Your task to perform on an android device: turn off location Image 0: 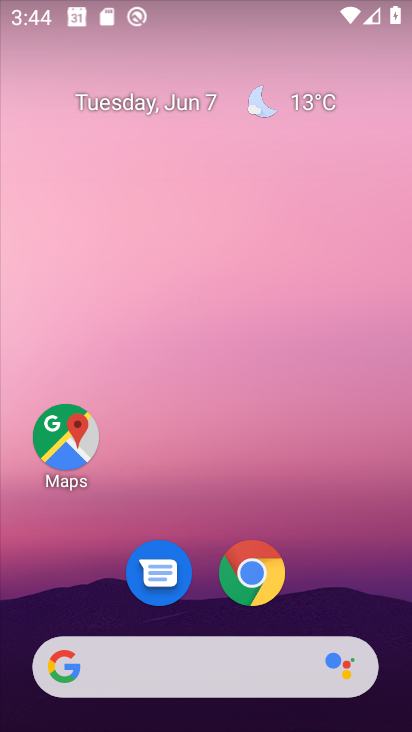
Step 0: press home button
Your task to perform on an android device: turn off location Image 1: 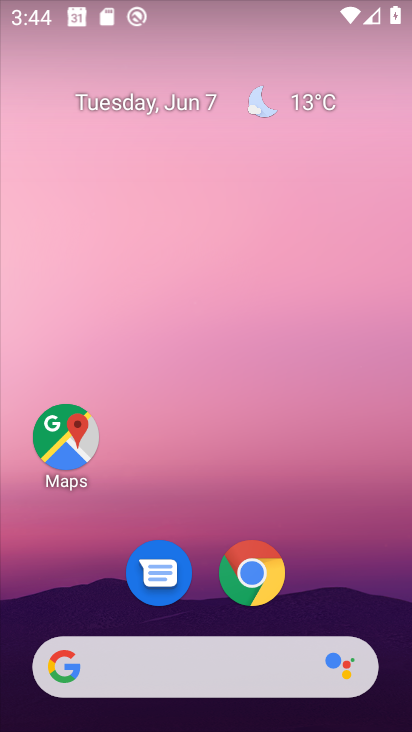
Step 1: drag from (374, 588) to (322, 27)
Your task to perform on an android device: turn off location Image 2: 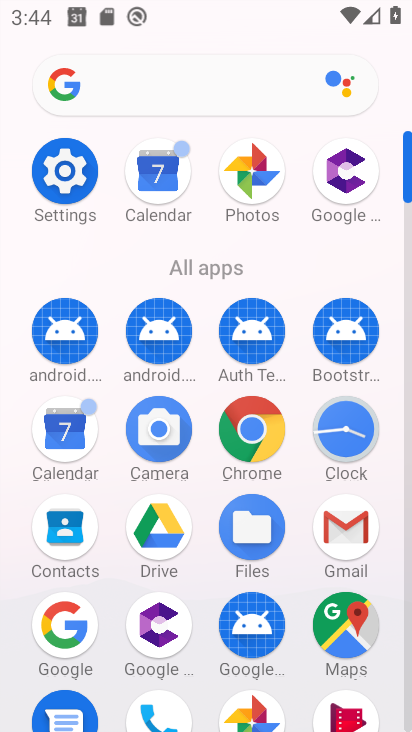
Step 2: press home button
Your task to perform on an android device: turn off location Image 3: 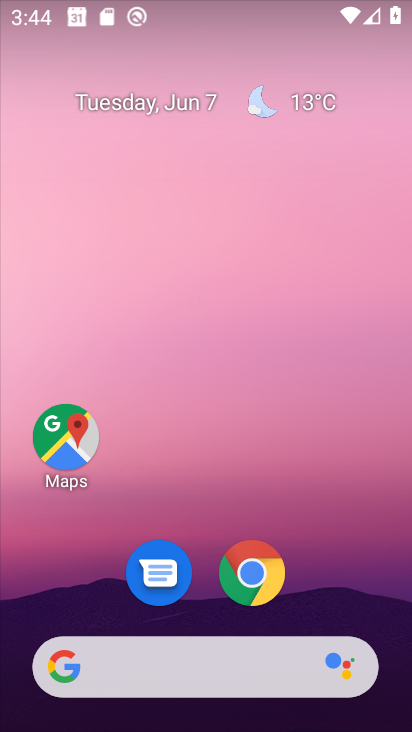
Step 3: drag from (357, 605) to (323, 43)
Your task to perform on an android device: turn off location Image 4: 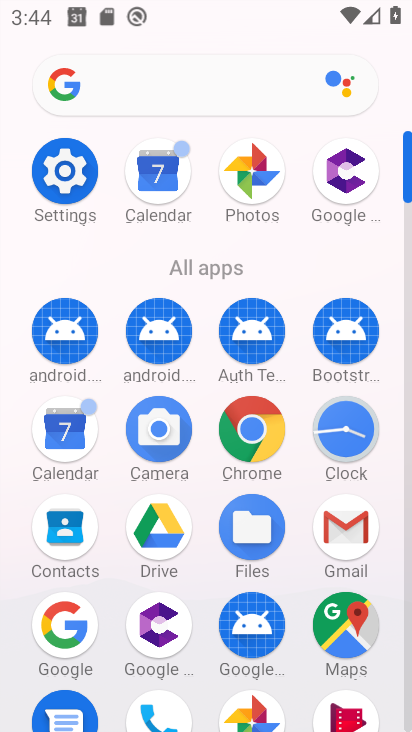
Step 4: click (59, 174)
Your task to perform on an android device: turn off location Image 5: 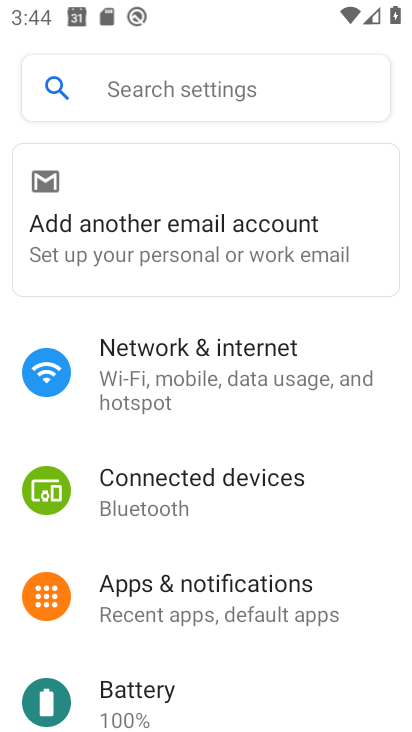
Step 5: drag from (273, 591) to (240, 286)
Your task to perform on an android device: turn off location Image 6: 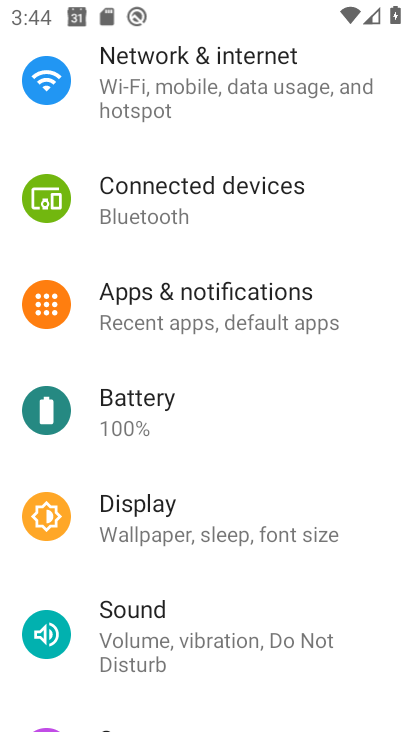
Step 6: drag from (224, 626) to (298, 49)
Your task to perform on an android device: turn off location Image 7: 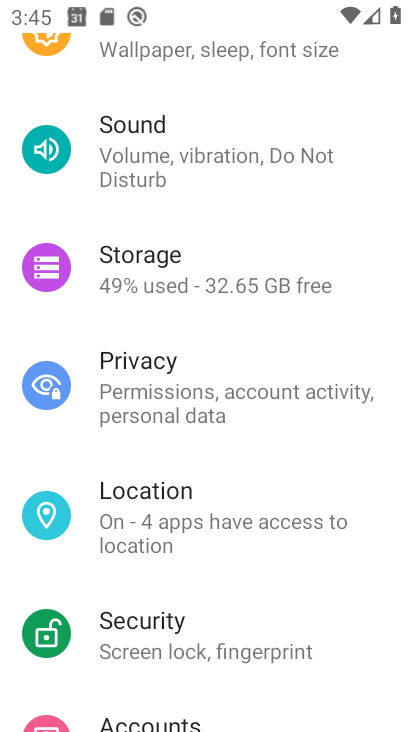
Step 7: drag from (279, 217) to (277, 69)
Your task to perform on an android device: turn off location Image 8: 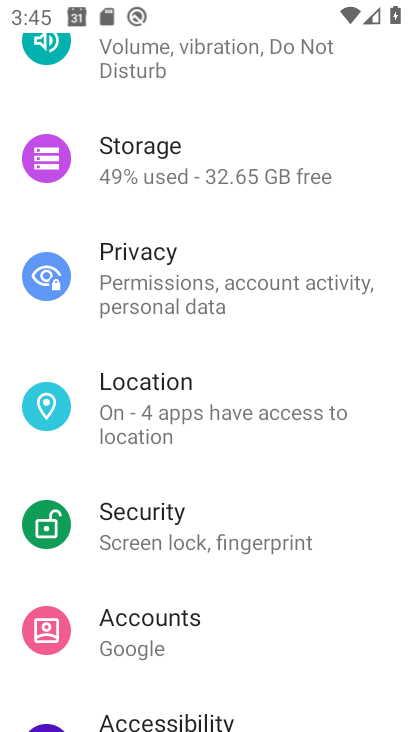
Step 8: drag from (257, 564) to (272, 1)
Your task to perform on an android device: turn off location Image 9: 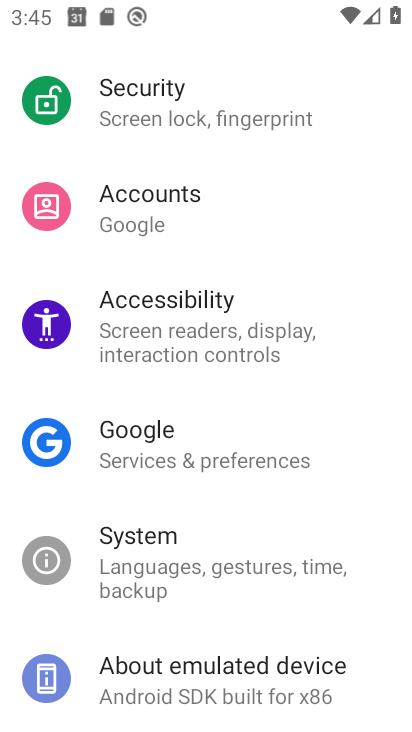
Step 9: drag from (260, 80) to (324, 501)
Your task to perform on an android device: turn off location Image 10: 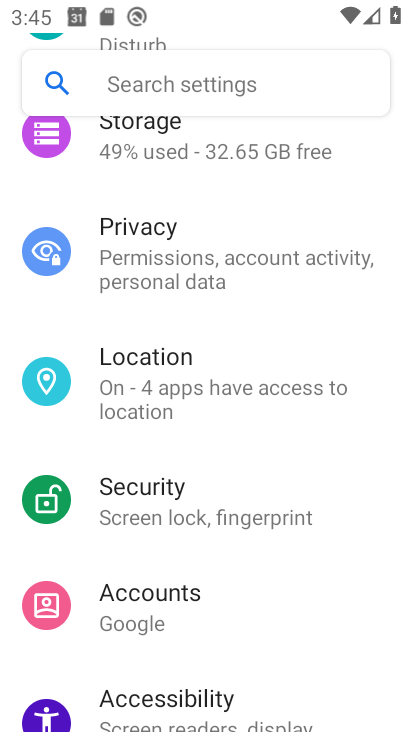
Step 10: click (180, 372)
Your task to perform on an android device: turn off location Image 11: 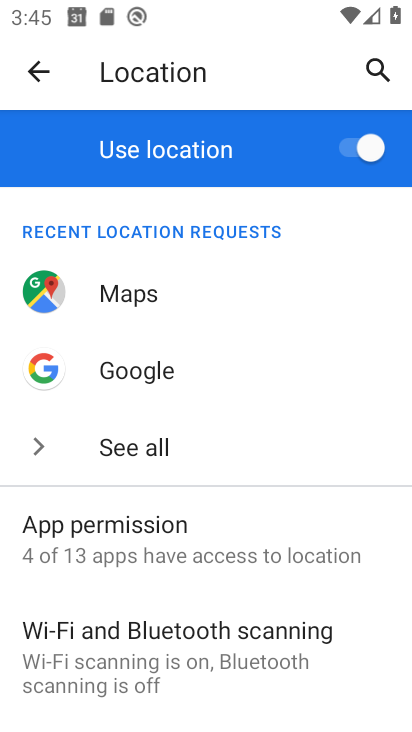
Step 11: click (263, 152)
Your task to perform on an android device: turn off location Image 12: 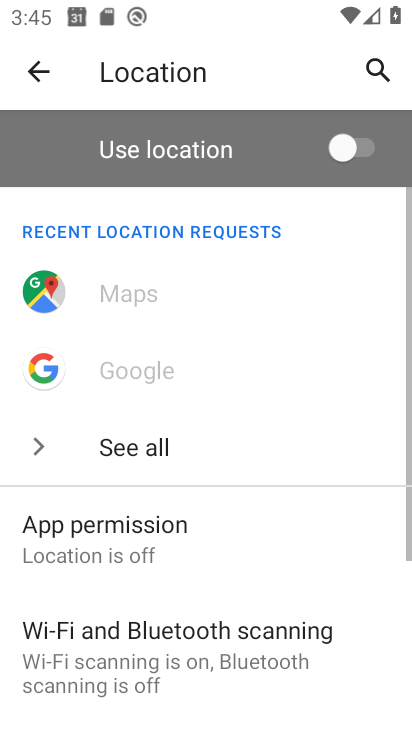
Step 12: task complete